Your task to perform on an android device: add a contact Image 0: 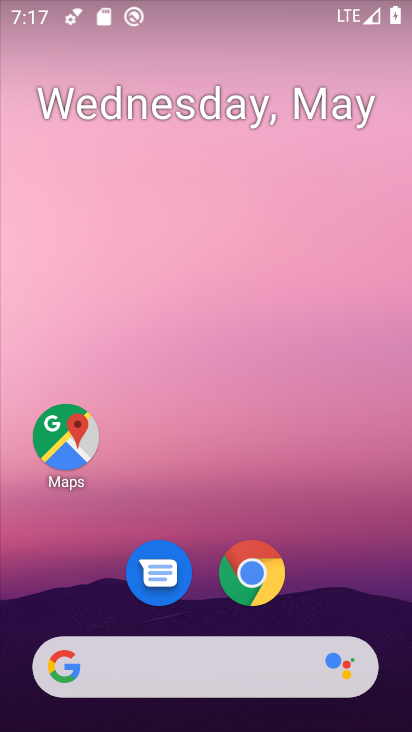
Step 0: drag from (391, 708) to (312, 136)
Your task to perform on an android device: add a contact Image 1: 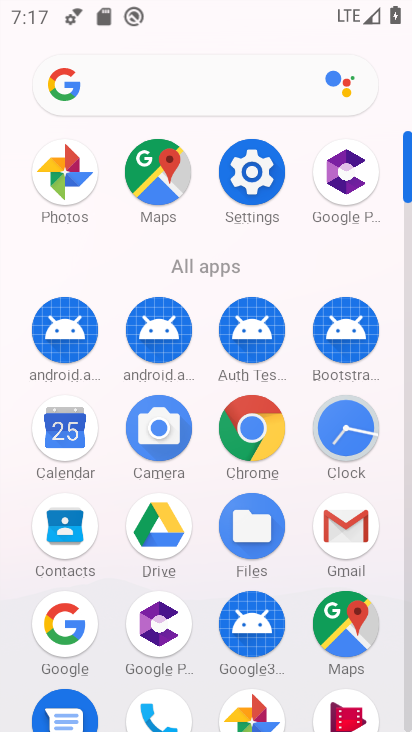
Step 1: drag from (201, 702) to (173, 401)
Your task to perform on an android device: add a contact Image 2: 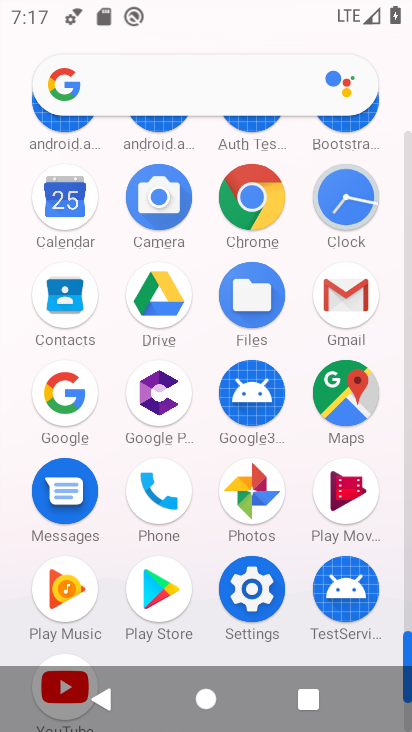
Step 2: click (57, 301)
Your task to perform on an android device: add a contact Image 3: 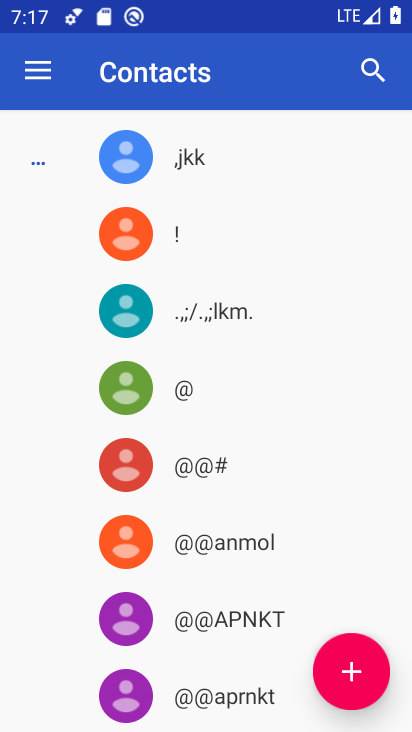
Step 3: click (352, 669)
Your task to perform on an android device: add a contact Image 4: 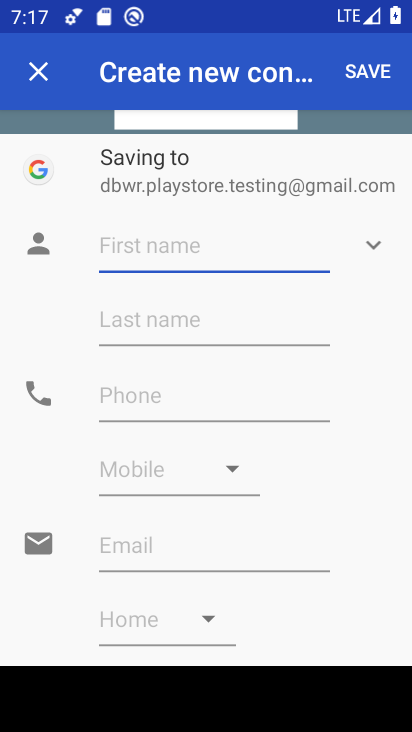
Step 4: click (162, 254)
Your task to perform on an android device: add a contact Image 5: 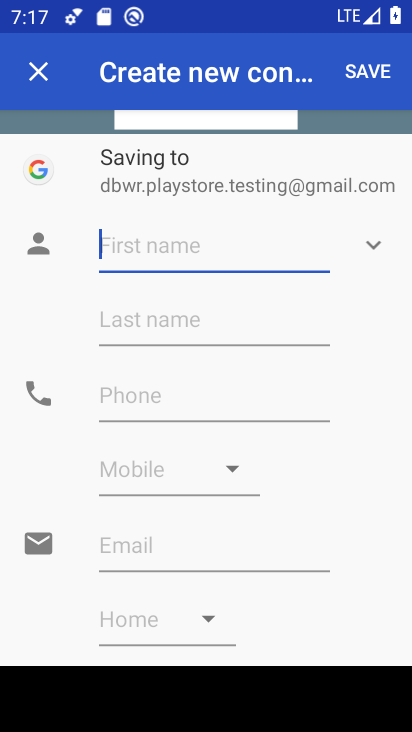
Step 5: type "dgcghftfyue"
Your task to perform on an android device: add a contact Image 6: 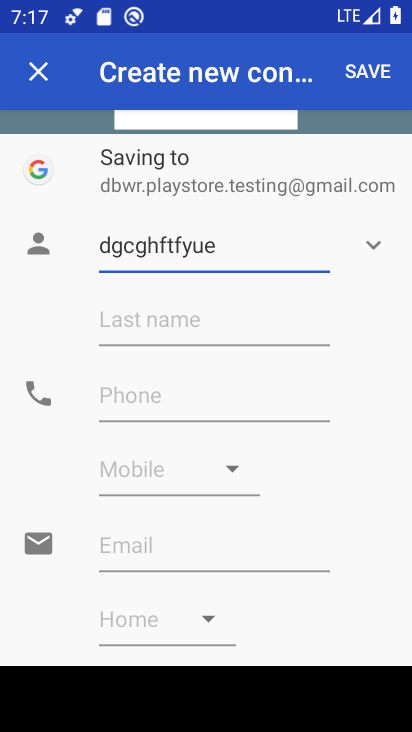
Step 6: click (157, 324)
Your task to perform on an android device: add a contact Image 7: 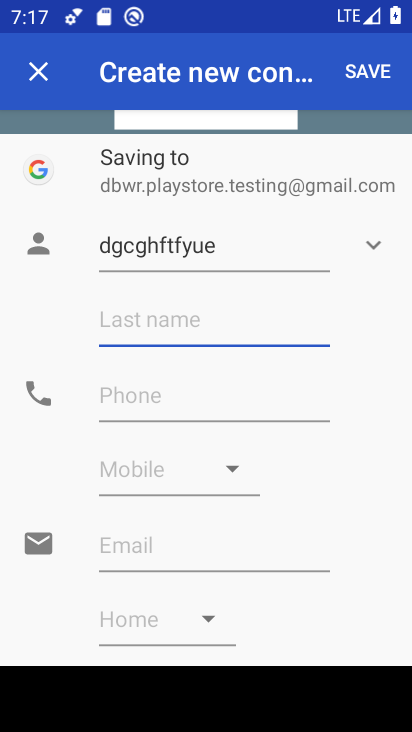
Step 7: type "fjjfjfjhjf"
Your task to perform on an android device: add a contact Image 8: 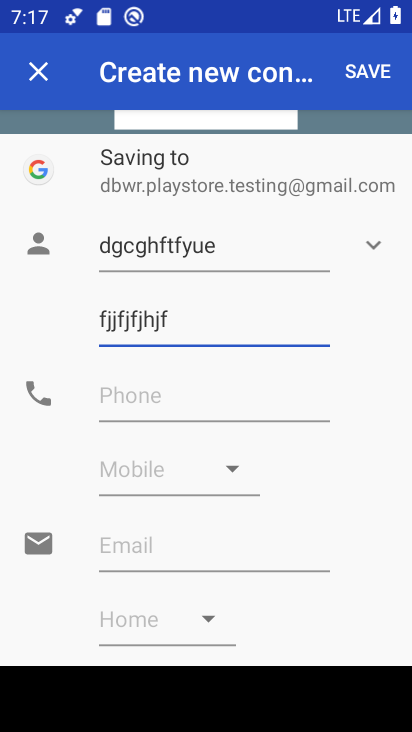
Step 8: click (184, 411)
Your task to perform on an android device: add a contact Image 9: 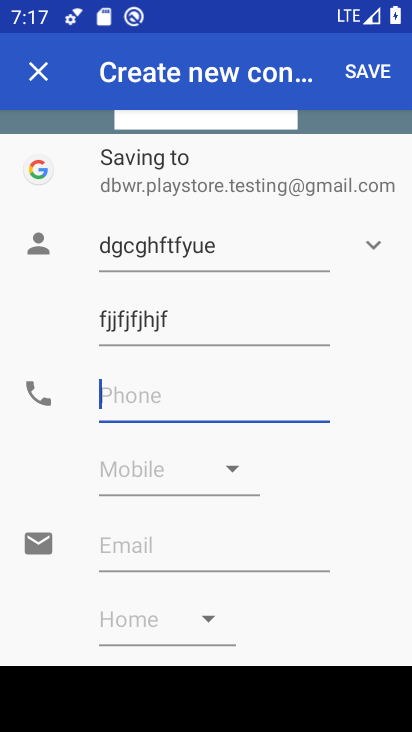
Step 9: type "77758855455"
Your task to perform on an android device: add a contact Image 10: 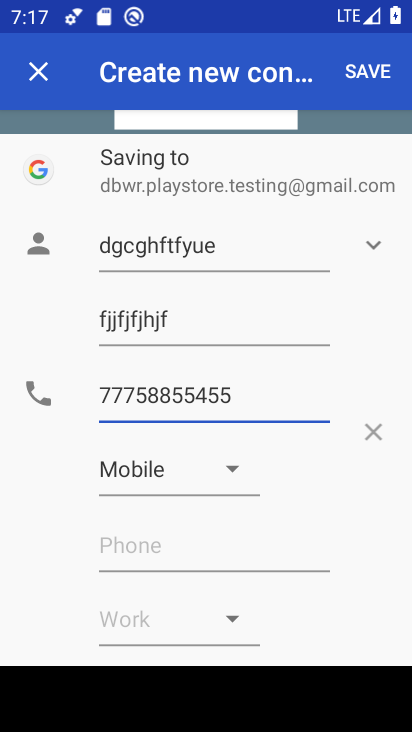
Step 10: click (346, 78)
Your task to perform on an android device: add a contact Image 11: 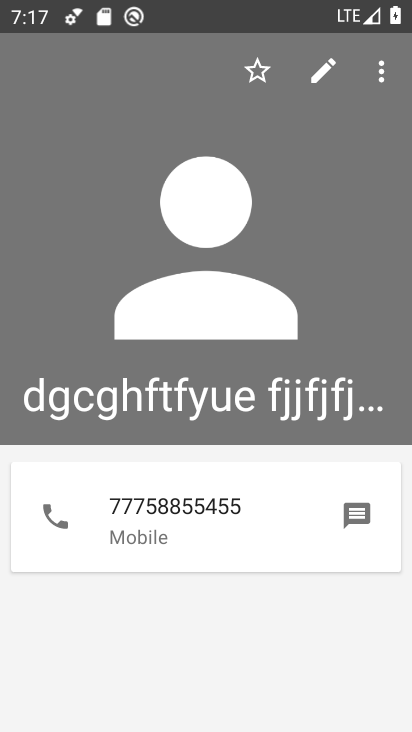
Step 11: task complete